Your task to perform on an android device: Open privacy settings Image 0: 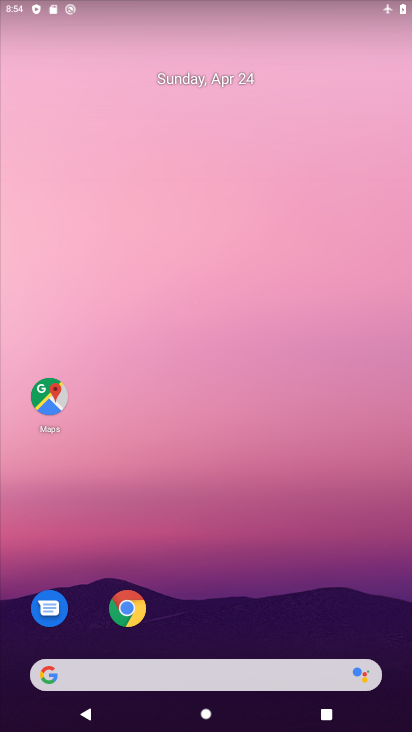
Step 0: click (203, 621)
Your task to perform on an android device: Open privacy settings Image 1: 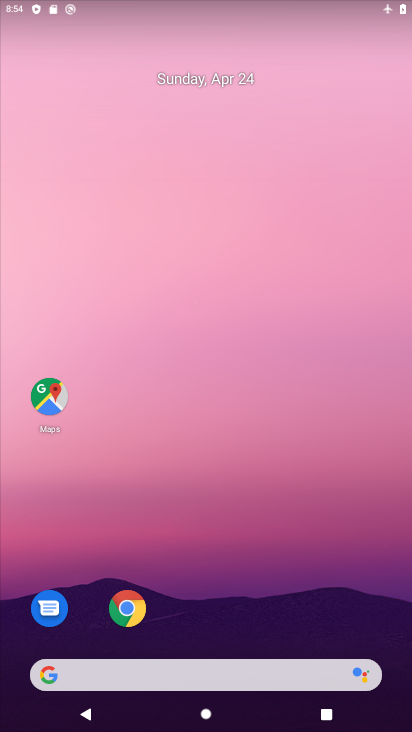
Step 1: click (131, 605)
Your task to perform on an android device: Open privacy settings Image 2: 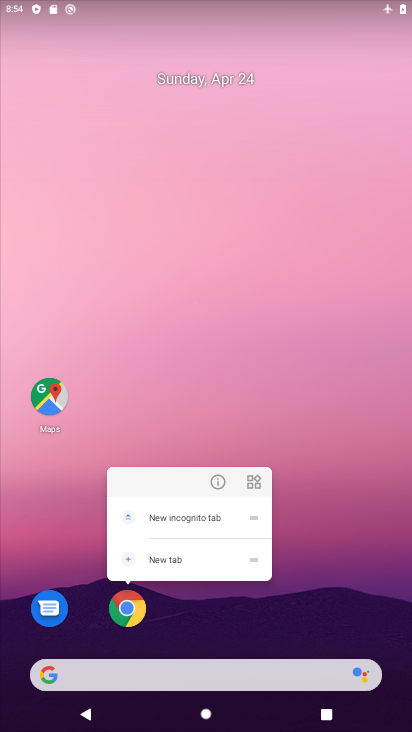
Step 2: click (131, 606)
Your task to perform on an android device: Open privacy settings Image 3: 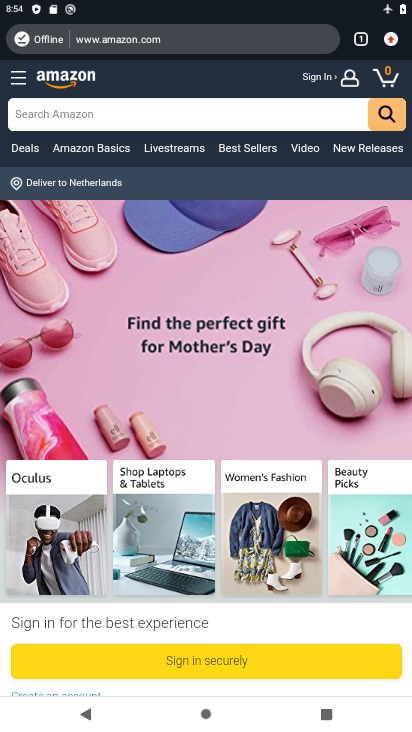
Step 3: drag from (388, 44) to (257, 478)
Your task to perform on an android device: Open privacy settings Image 4: 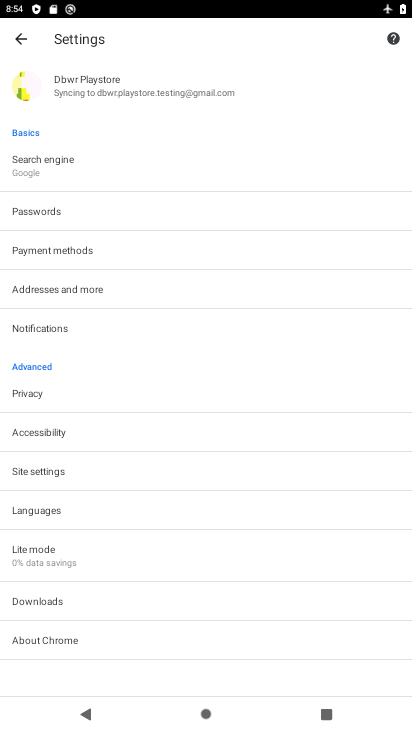
Step 4: click (69, 388)
Your task to perform on an android device: Open privacy settings Image 5: 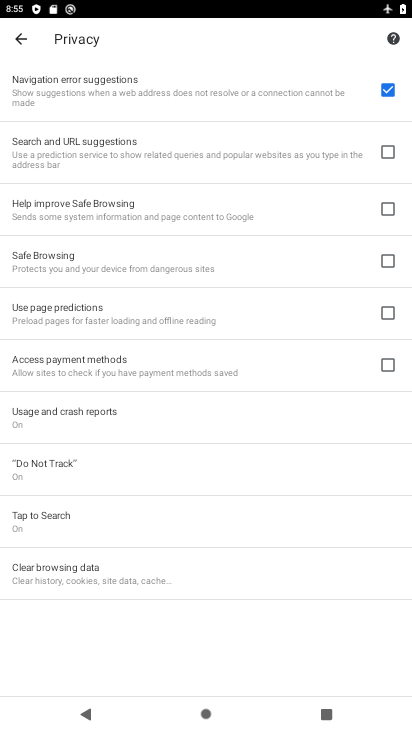
Step 5: task complete